Your task to perform on an android device: open chrome and create a bookmark for the current page Image 0: 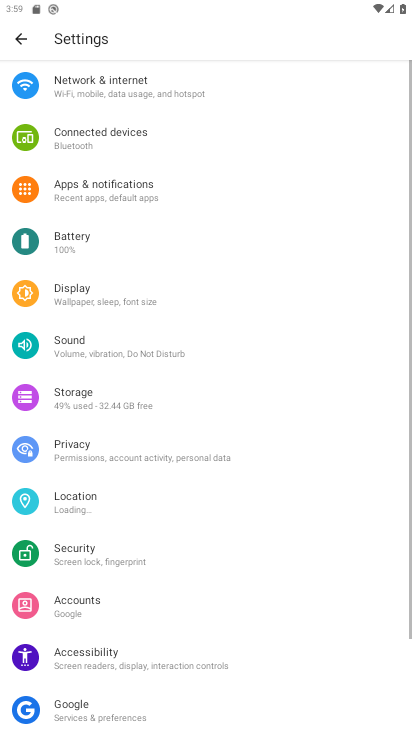
Step 0: press home button
Your task to perform on an android device: open chrome and create a bookmark for the current page Image 1: 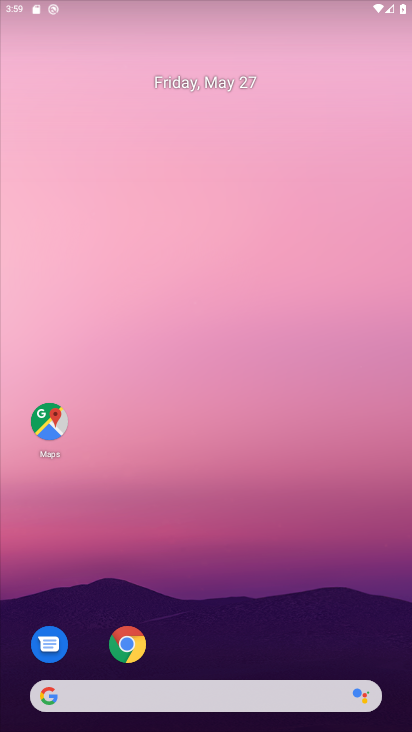
Step 1: drag from (296, 608) to (184, 62)
Your task to perform on an android device: open chrome and create a bookmark for the current page Image 2: 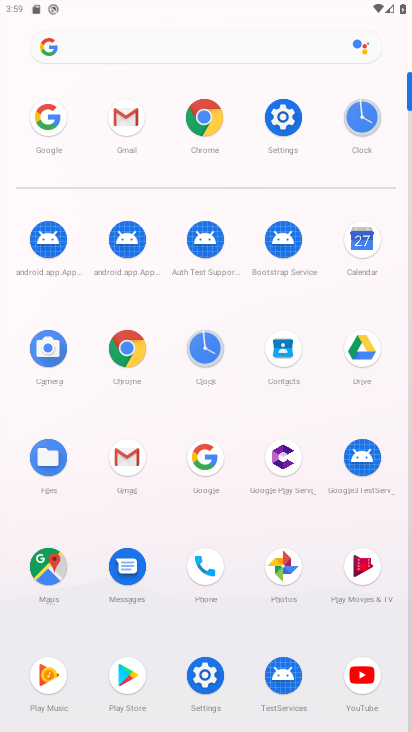
Step 2: click (127, 350)
Your task to perform on an android device: open chrome and create a bookmark for the current page Image 3: 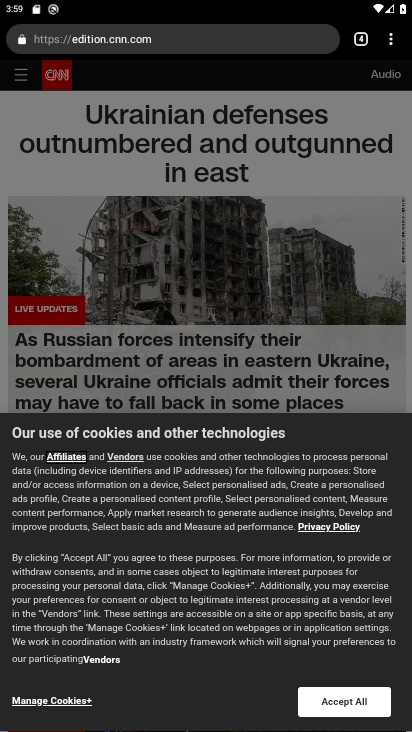
Step 3: click (391, 33)
Your task to perform on an android device: open chrome and create a bookmark for the current page Image 4: 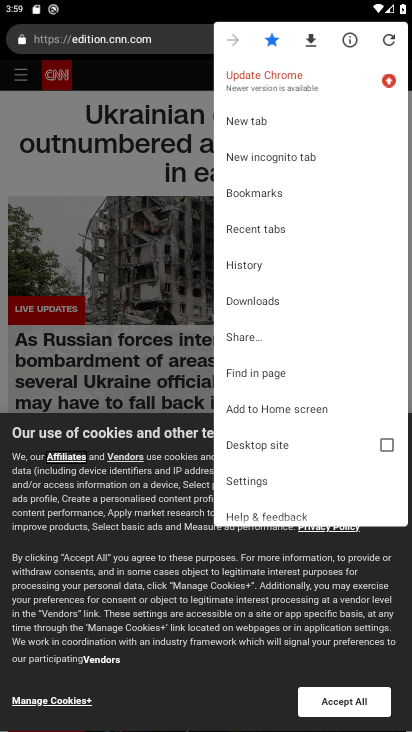
Step 4: task complete